Your task to perform on an android device: open sync settings in chrome Image 0: 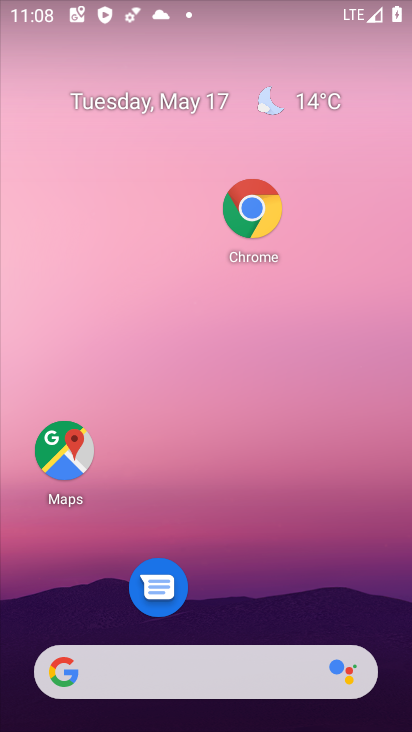
Step 0: click (249, 223)
Your task to perform on an android device: open sync settings in chrome Image 1: 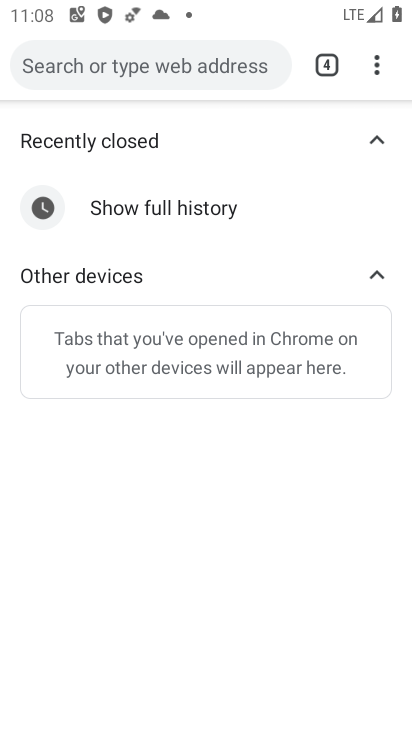
Step 1: click (377, 70)
Your task to perform on an android device: open sync settings in chrome Image 2: 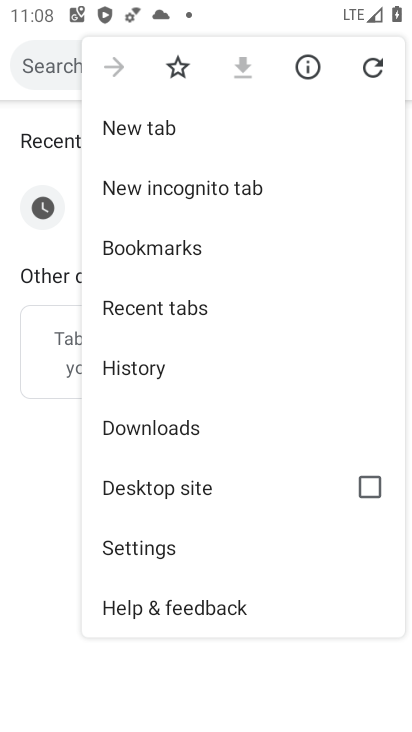
Step 2: click (168, 549)
Your task to perform on an android device: open sync settings in chrome Image 3: 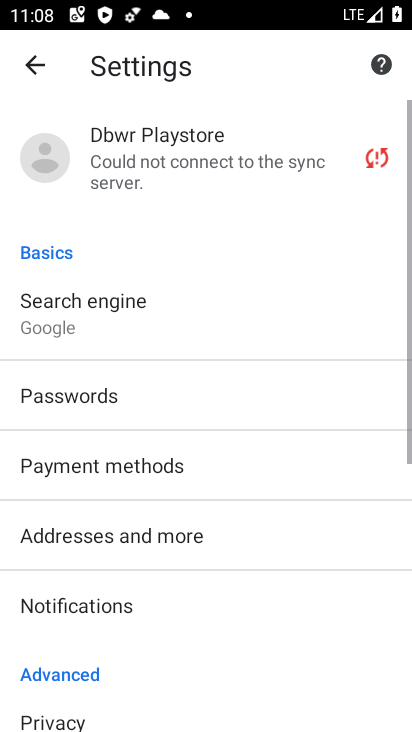
Step 3: click (179, 150)
Your task to perform on an android device: open sync settings in chrome Image 4: 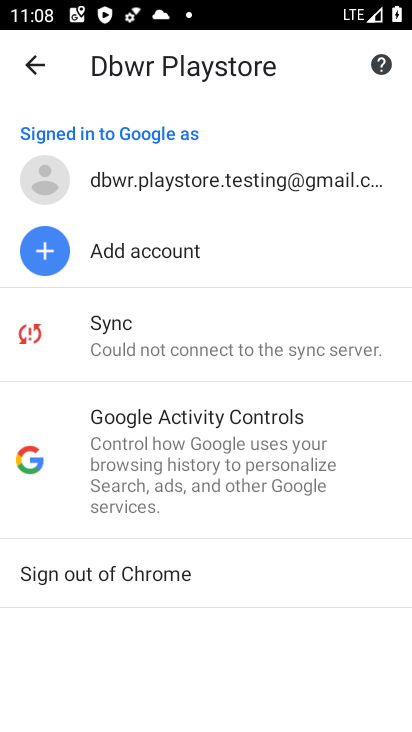
Step 4: click (169, 321)
Your task to perform on an android device: open sync settings in chrome Image 5: 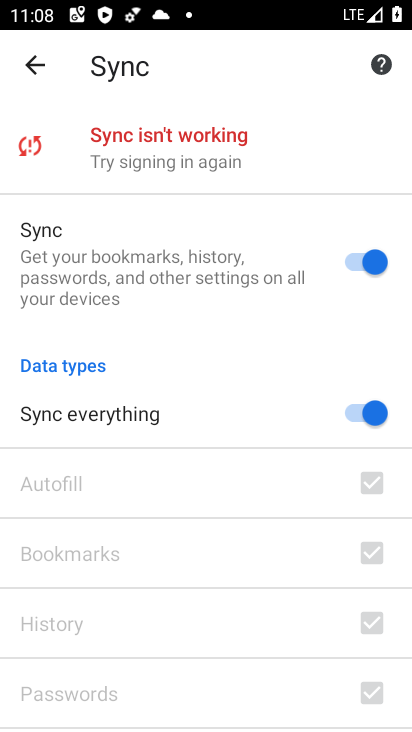
Step 5: task complete